Your task to perform on an android device: Open my contact list Image 0: 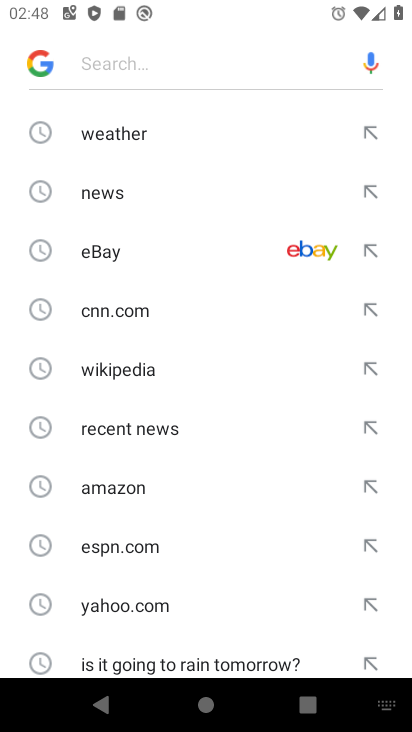
Step 0: press home button
Your task to perform on an android device: Open my contact list Image 1: 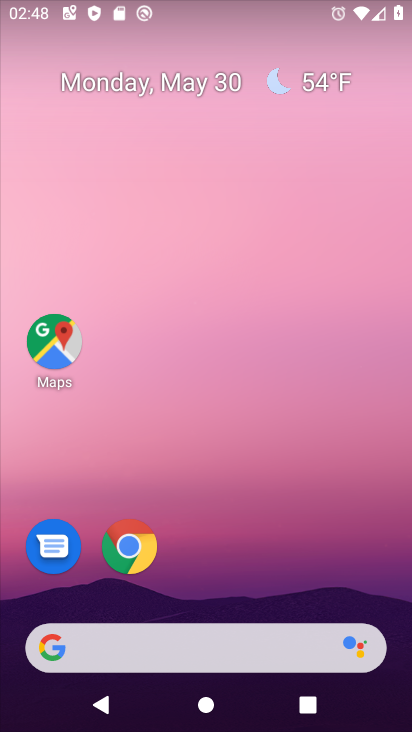
Step 1: drag from (231, 603) to (231, 520)
Your task to perform on an android device: Open my contact list Image 2: 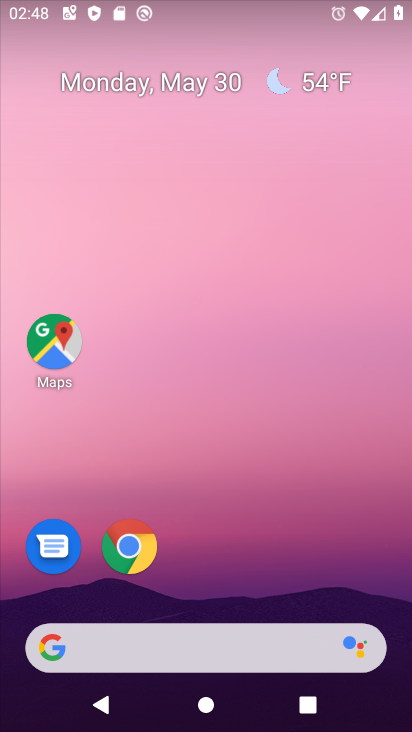
Step 2: drag from (217, 253) to (216, 70)
Your task to perform on an android device: Open my contact list Image 3: 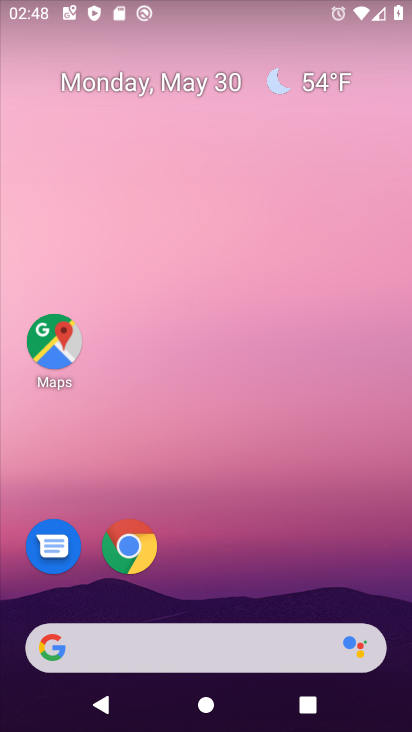
Step 3: drag from (219, 611) to (221, 64)
Your task to perform on an android device: Open my contact list Image 4: 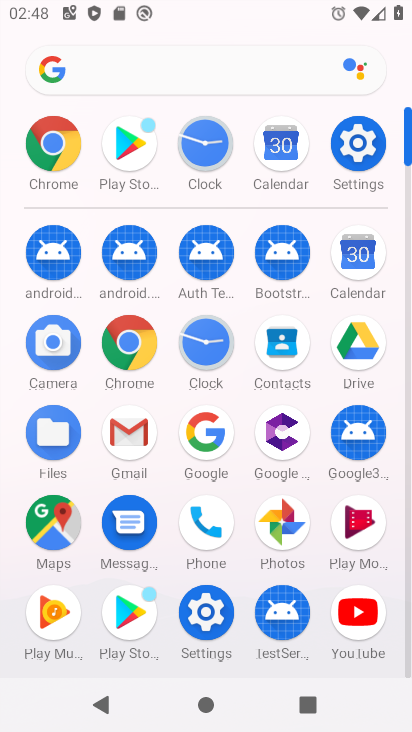
Step 4: click (282, 334)
Your task to perform on an android device: Open my contact list Image 5: 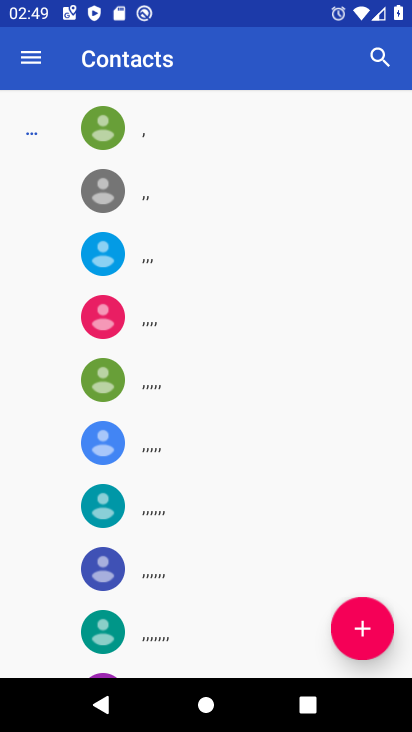
Step 5: task complete